Your task to perform on an android device: search for starred emails in the gmail app Image 0: 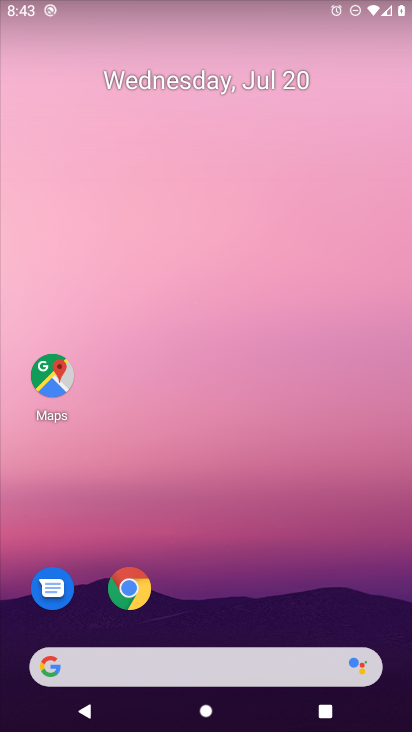
Step 0: drag from (8, 717) to (326, 38)
Your task to perform on an android device: search for starred emails in the gmail app Image 1: 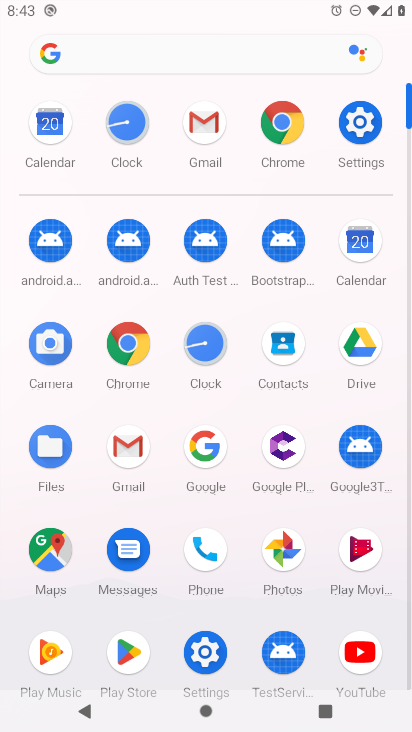
Step 1: click (135, 455)
Your task to perform on an android device: search for starred emails in the gmail app Image 2: 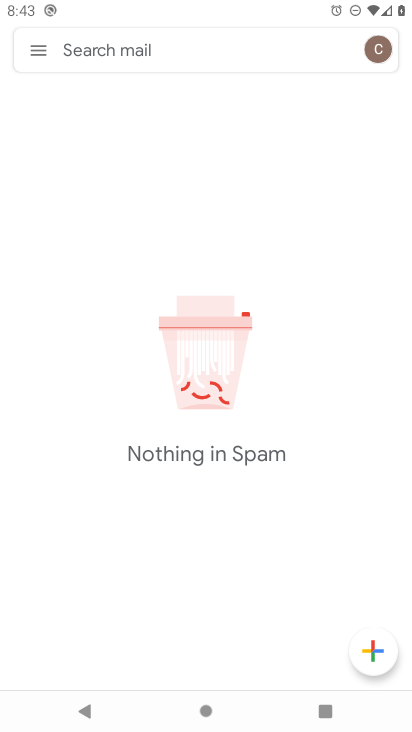
Step 2: click (36, 44)
Your task to perform on an android device: search for starred emails in the gmail app Image 3: 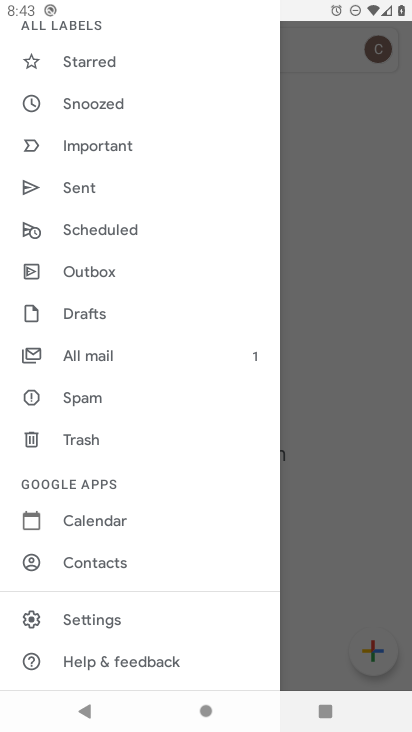
Step 3: click (108, 53)
Your task to perform on an android device: search for starred emails in the gmail app Image 4: 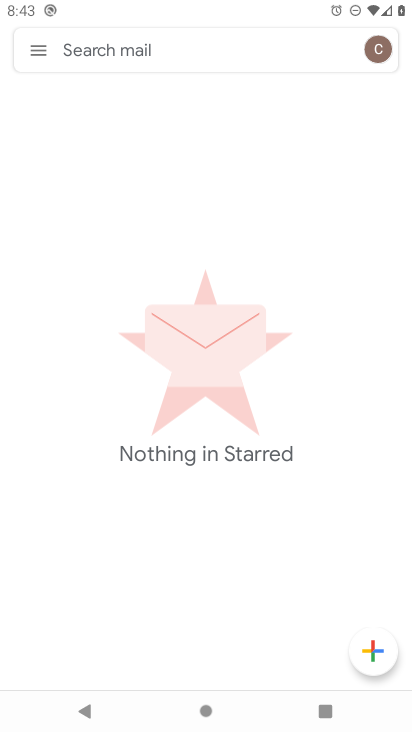
Step 4: task complete